Your task to perform on an android device: Add usb-a to usb-b to the cart on costco.com Image 0: 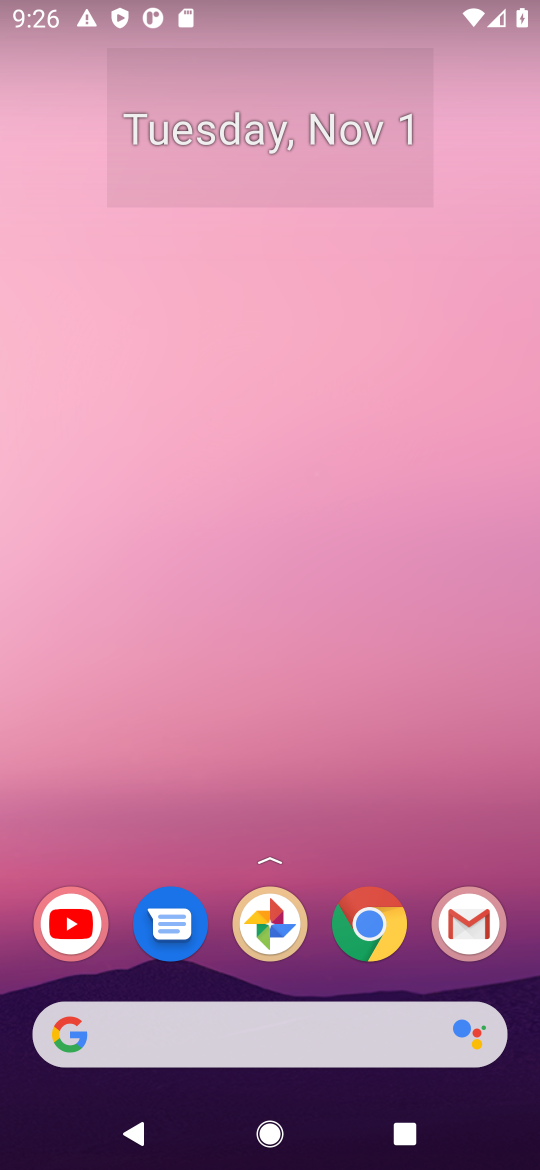
Step 0: click (355, 927)
Your task to perform on an android device: Add usb-a to usb-b to the cart on costco.com Image 1: 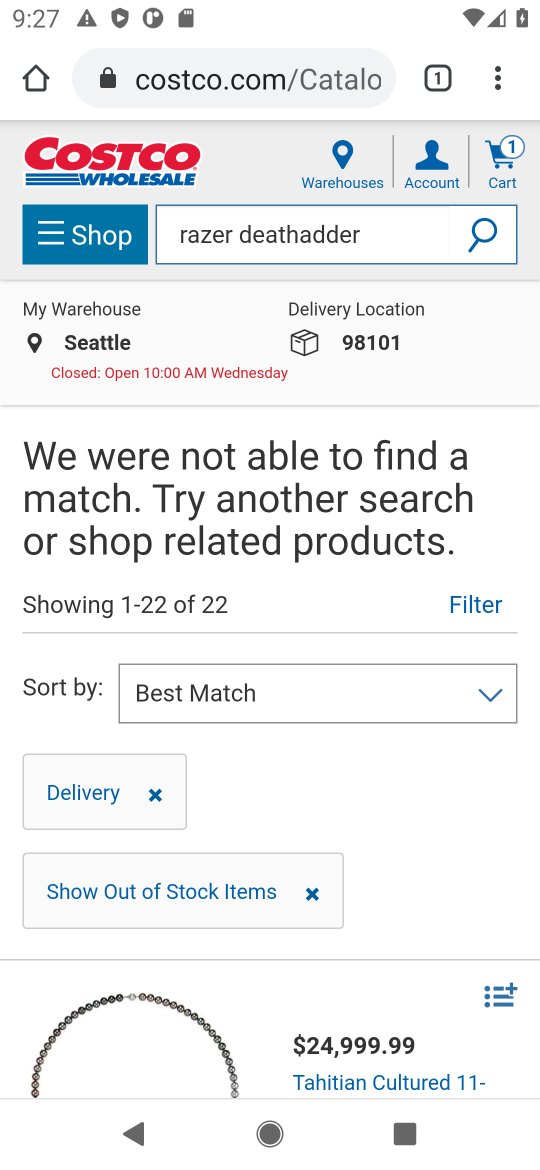
Step 1: click (397, 241)
Your task to perform on an android device: Add usb-a to usb-b to the cart on costco.com Image 2: 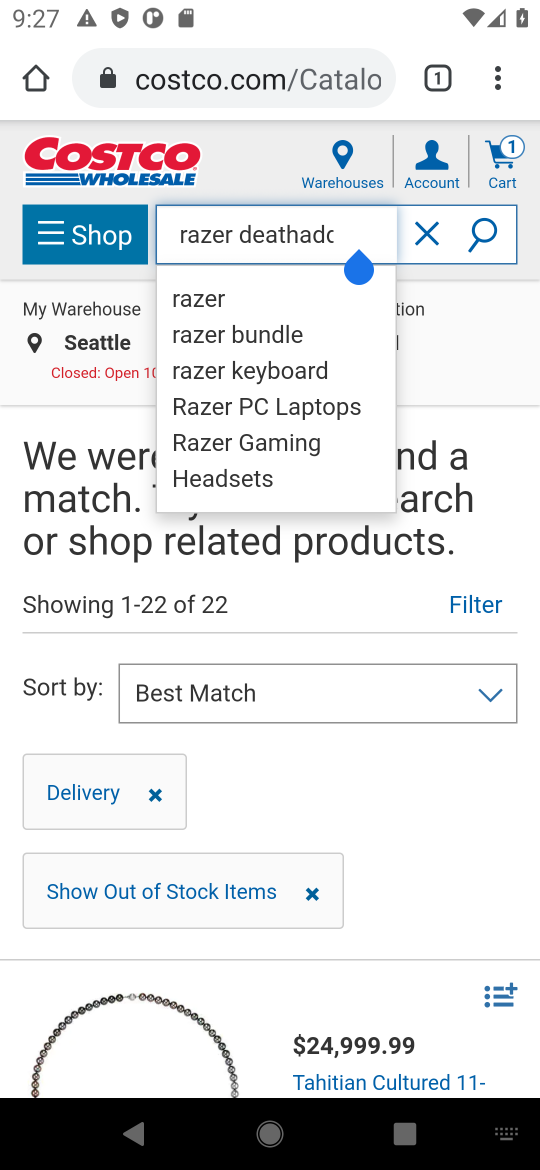
Step 2: click (425, 236)
Your task to perform on an android device: Add usb-a to usb-b to the cart on costco.com Image 3: 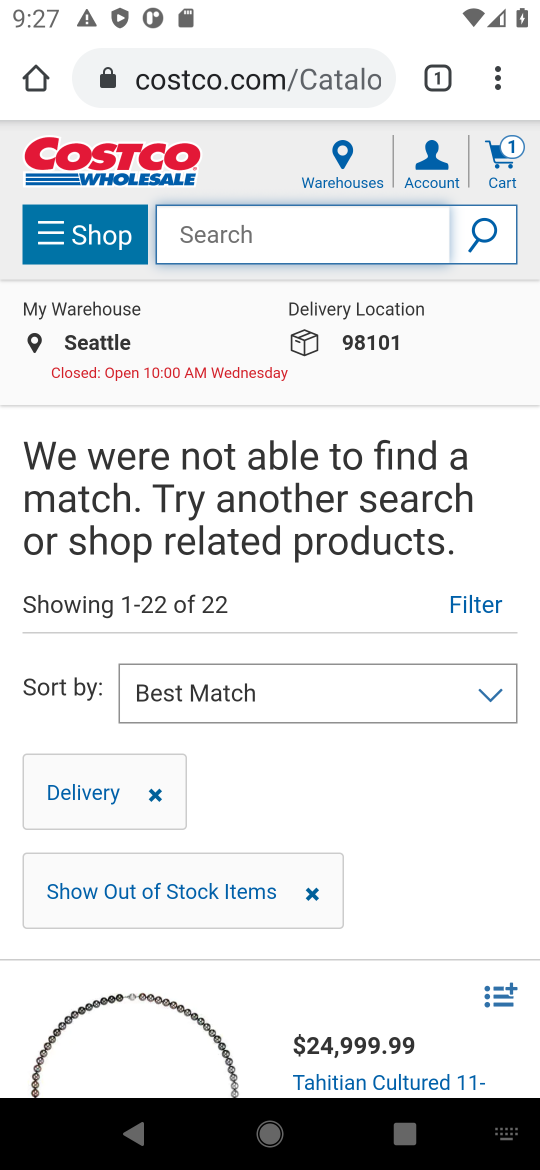
Step 3: type "usb-a to usb-b"
Your task to perform on an android device: Add usb-a to usb-b to the cart on costco.com Image 4: 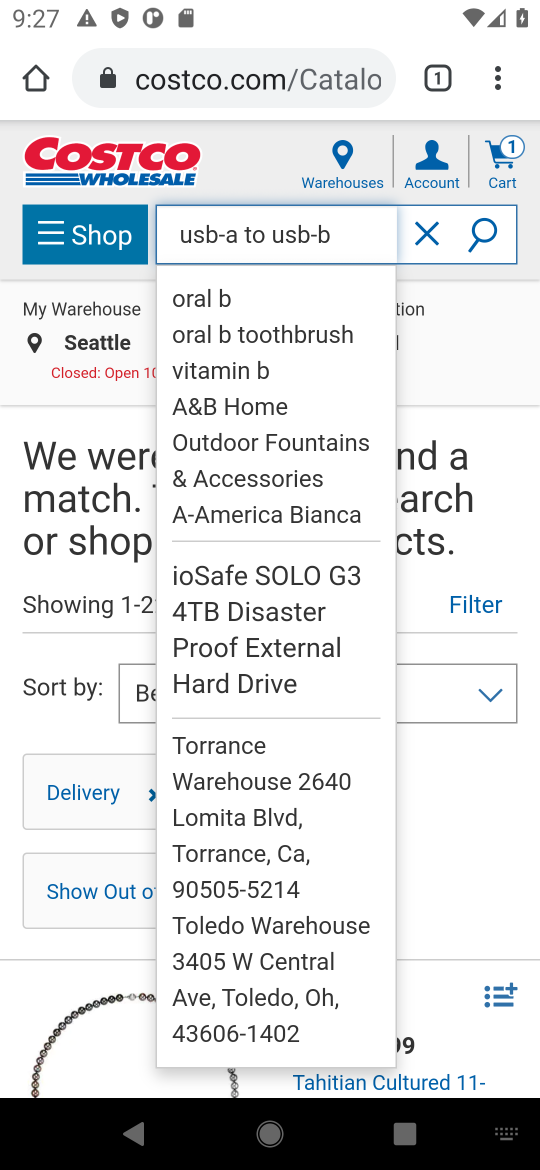
Step 4: press enter
Your task to perform on an android device: Add usb-a to usb-b to the cart on costco.com Image 5: 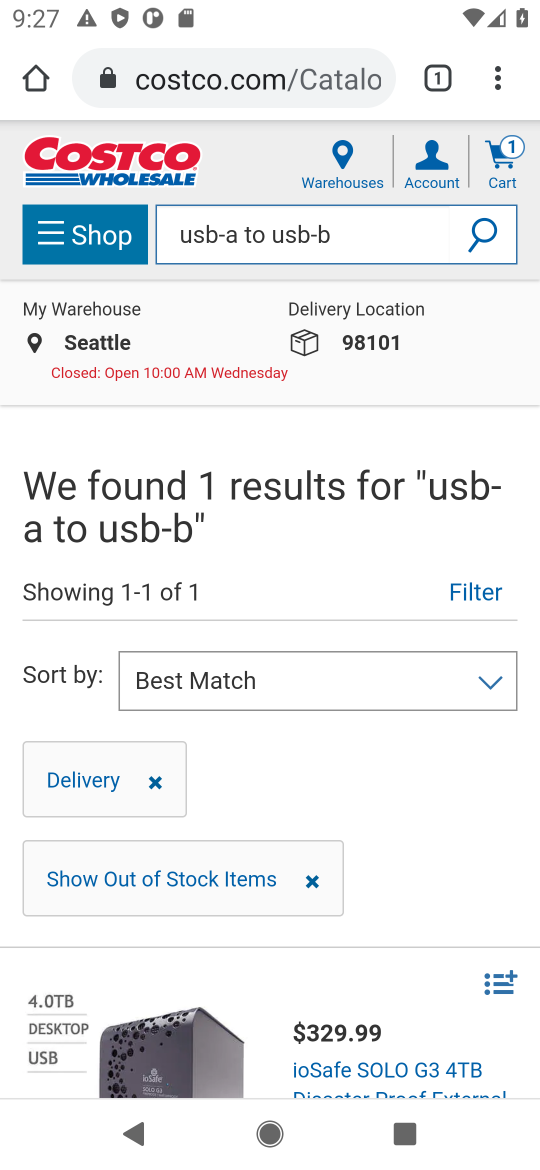
Step 5: task complete